Your task to perform on an android device: Open Youtube and go to "Your channel" Image 0: 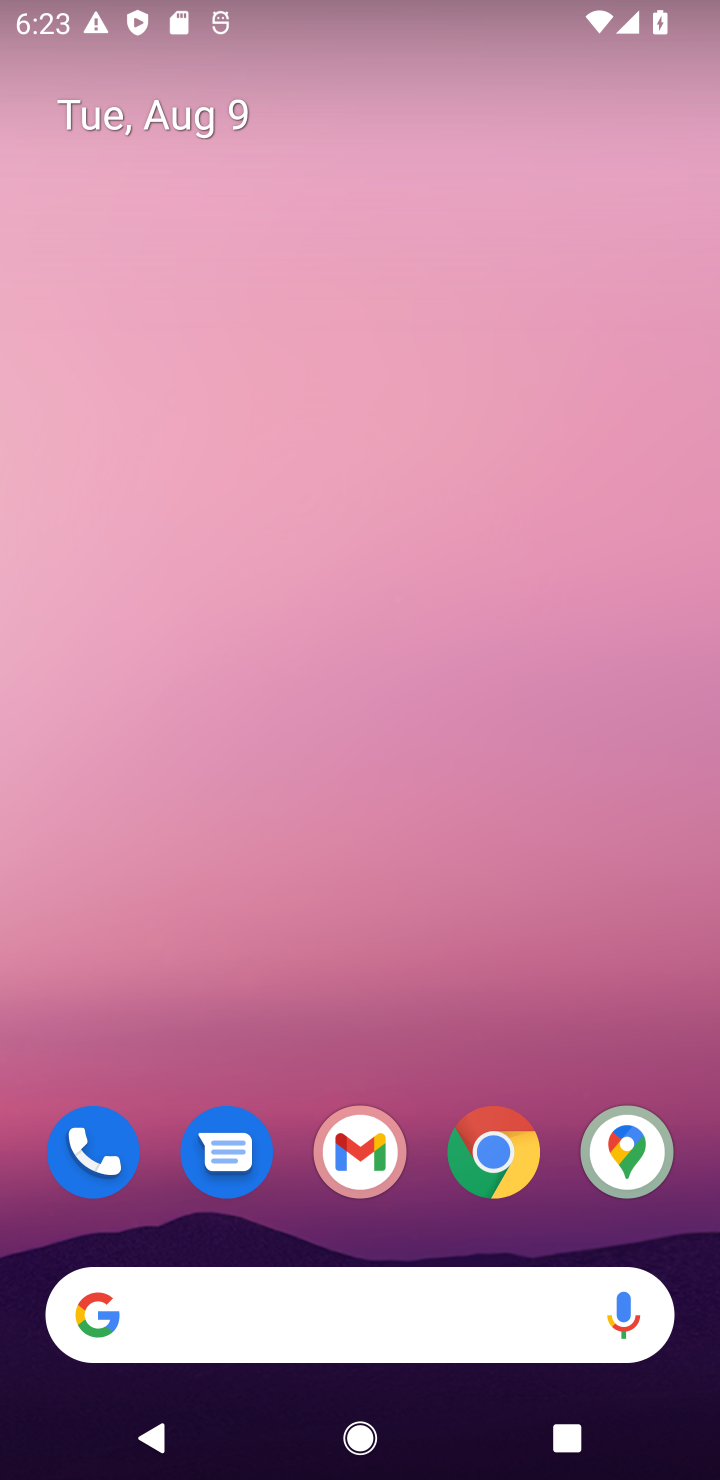
Step 0: press back button
Your task to perform on an android device: Open Youtube and go to "Your channel" Image 1: 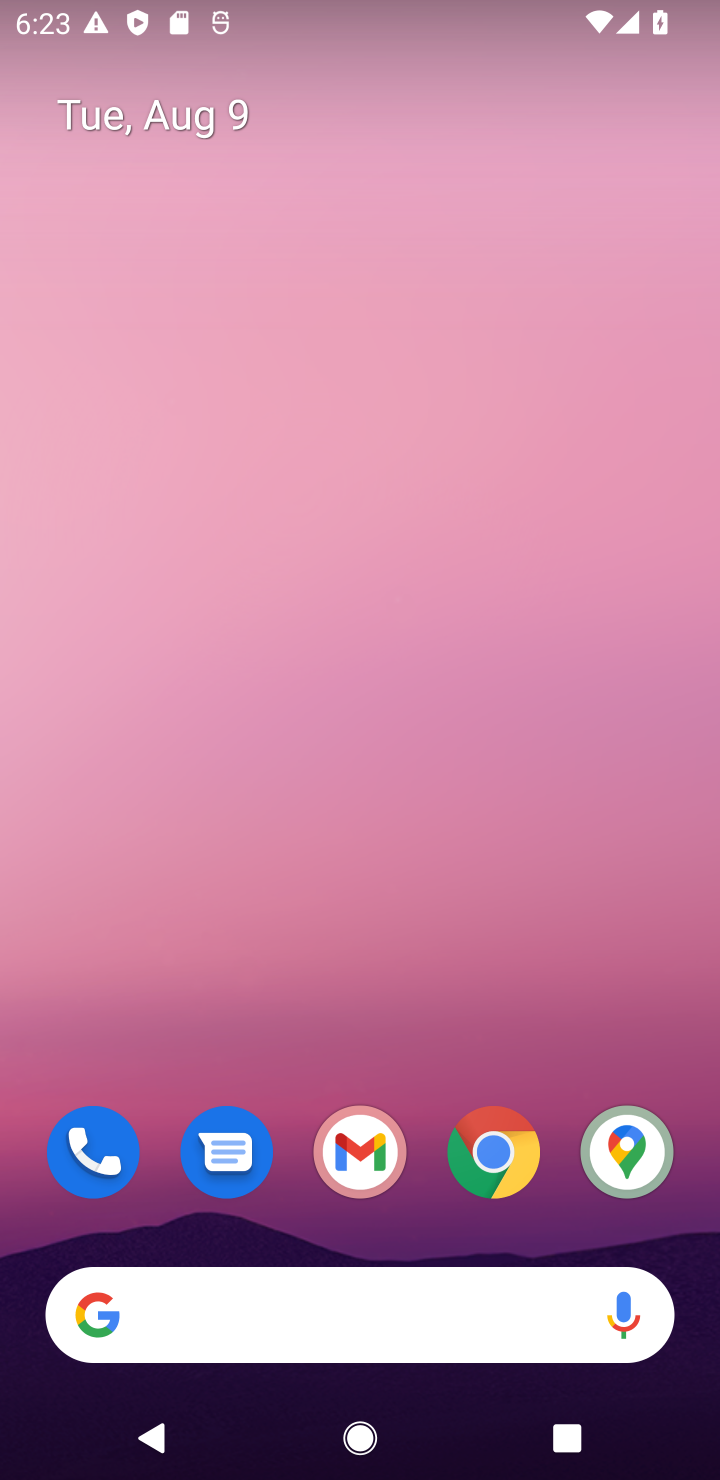
Step 1: drag from (322, 1251) to (515, 27)
Your task to perform on an android device: Open Youtube and go to "Your channel" Image 2: 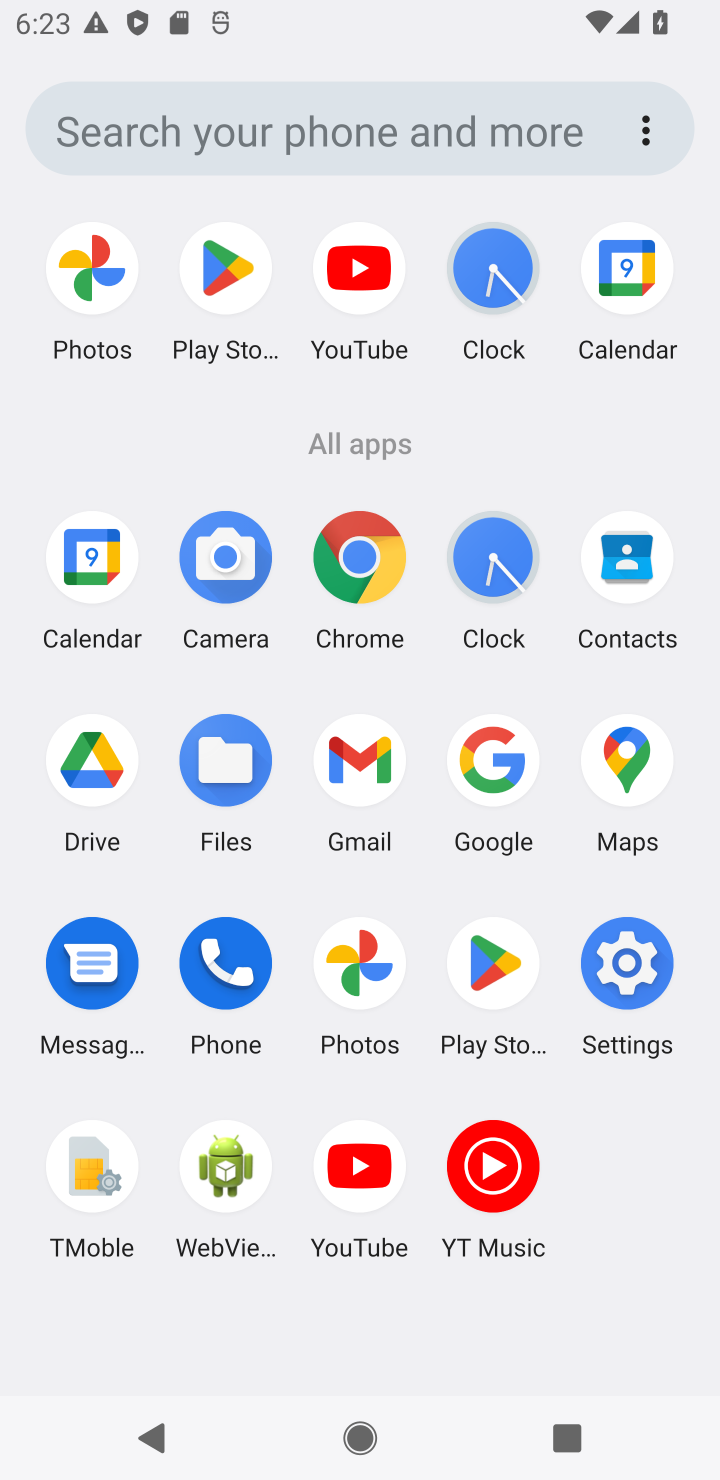
Step 2: click (356, 1159)
Your task to perform on an android device: Open Youtube and go to "Your channel" Image 3: 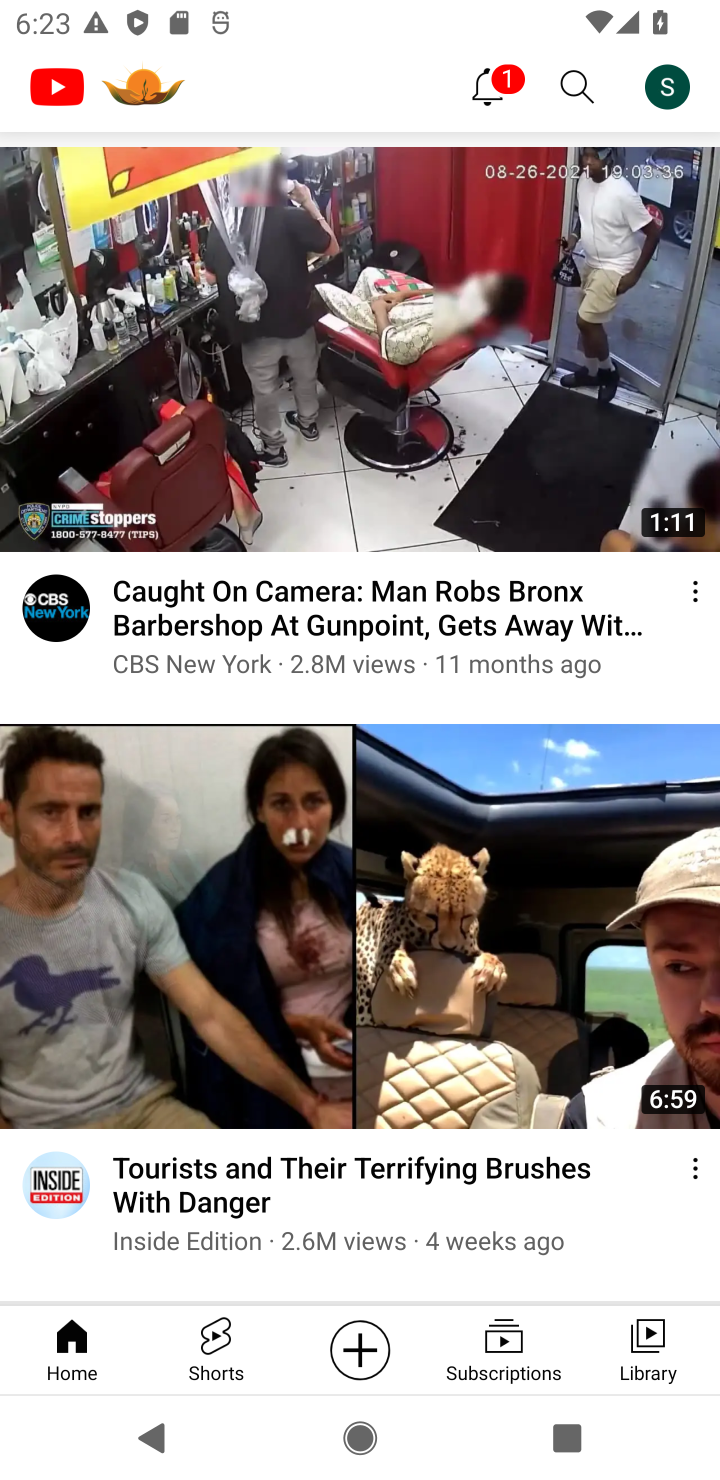
Step 3: click (678, 95)
Your task to perform on an android device: Open Youtube and go to "Your channel" Image 4: 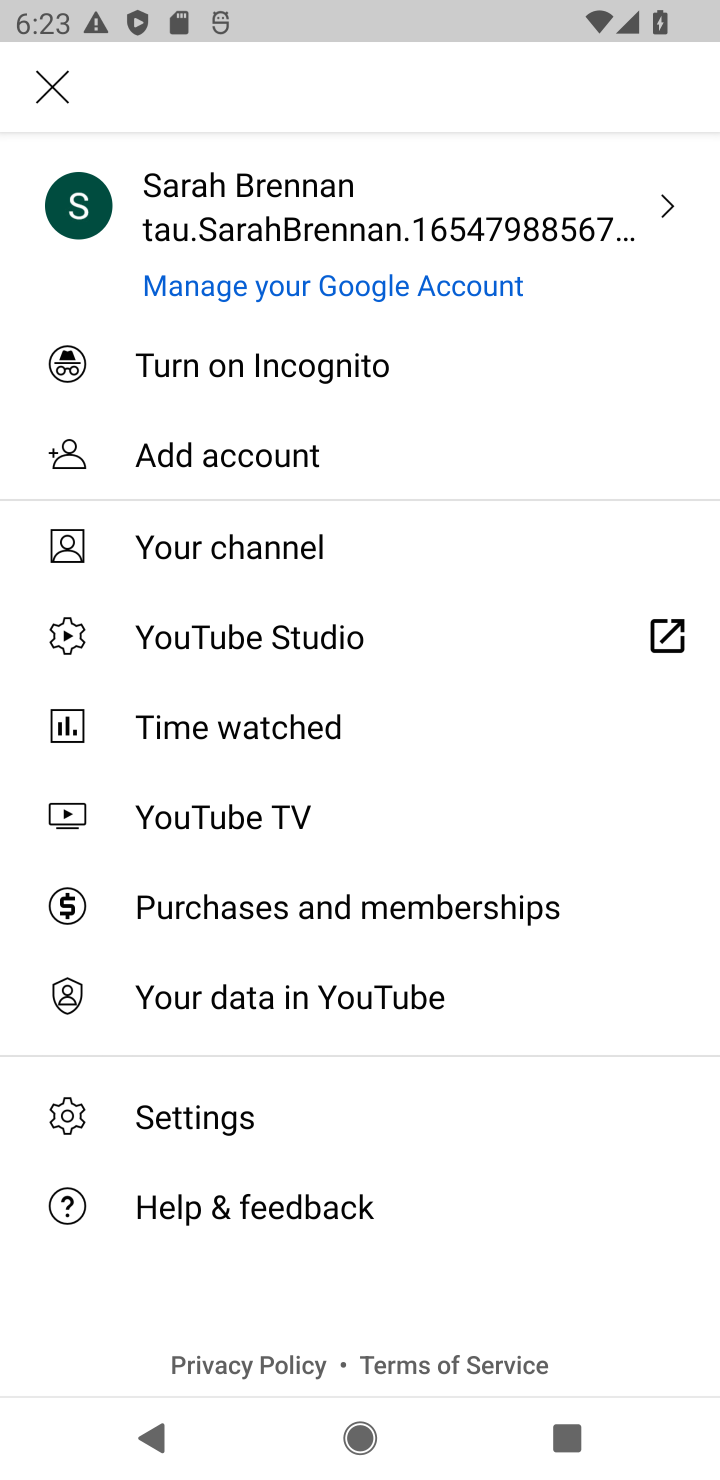
Step 4: click (208, 549)
Your task to perform on an android device: Open Youtube and go to "Your channel" Image 5: 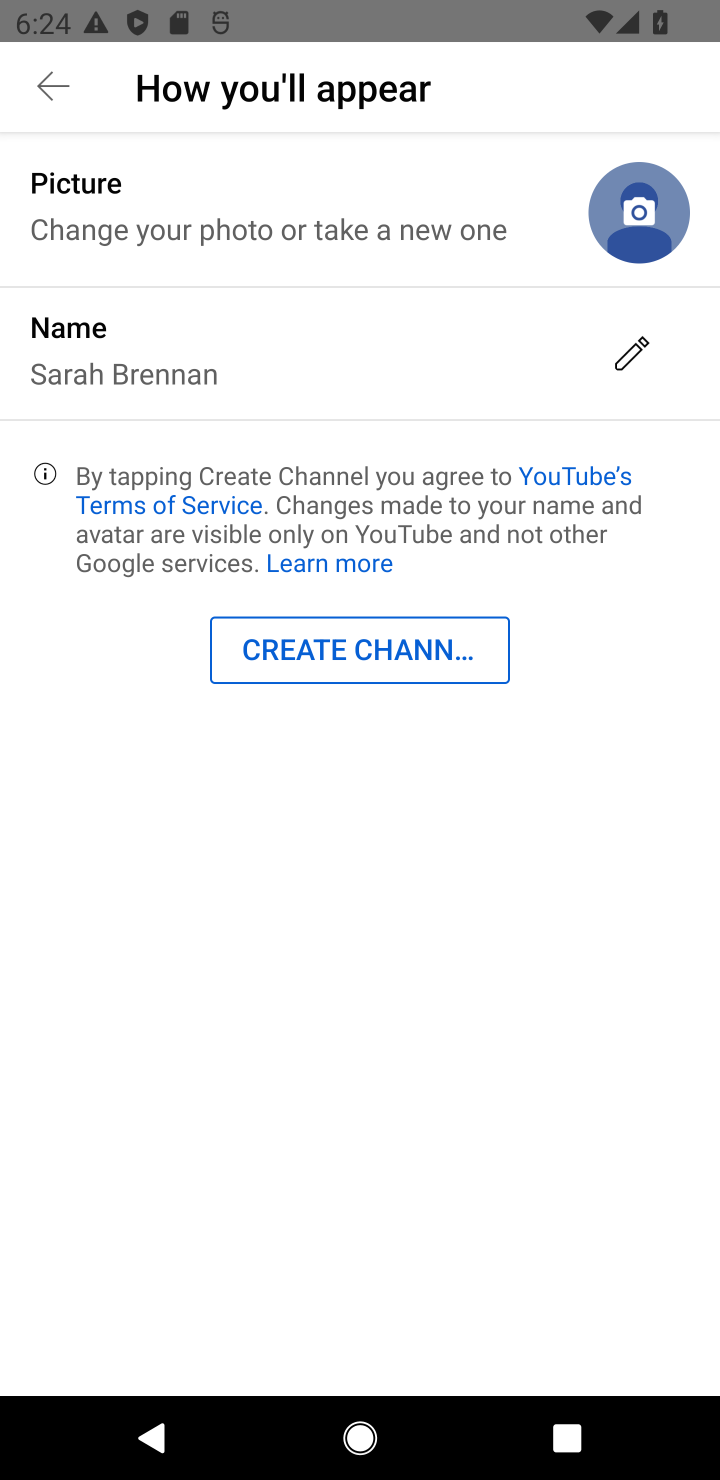
Step 5: task complete